Your task to perform on an android device: turn on airplane mode Image 0: 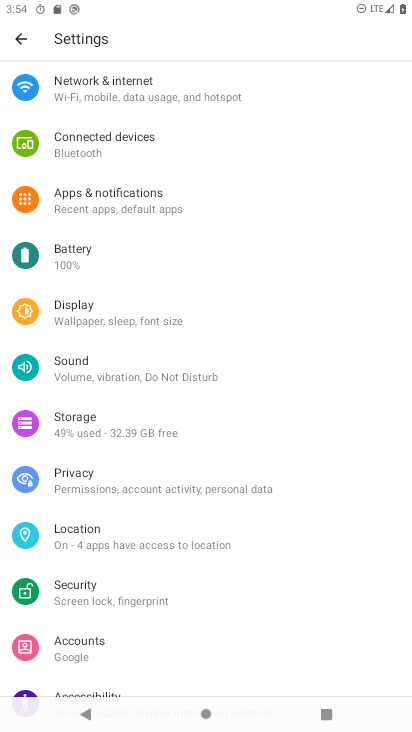
Step 0: drag from (214, 11) to (230, 475)
Your task to perform on an android device: turn on airplane mode Image 1: 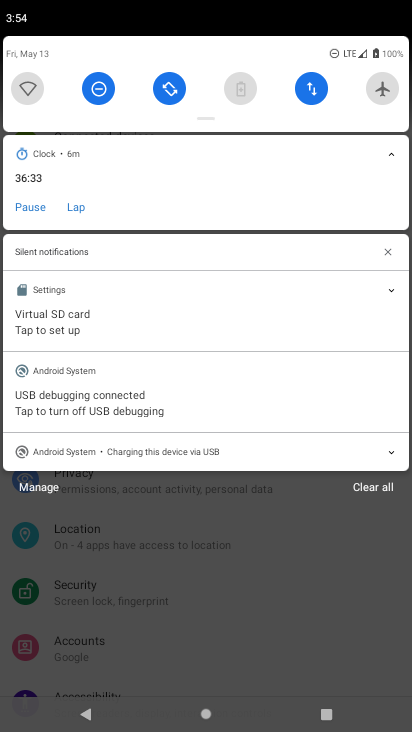
Step 1: click (382, 79)
Your task to perform on an android device: turn on airplane mode Image 2: 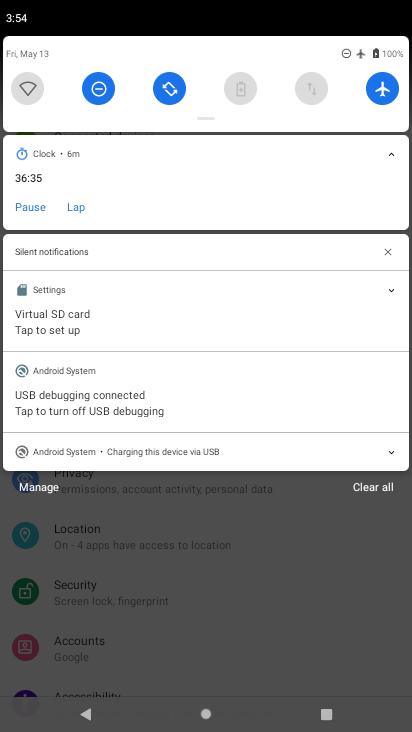
Step 2: task complete